Your task to perform on an android device: Open Yahoo.com Image 0: 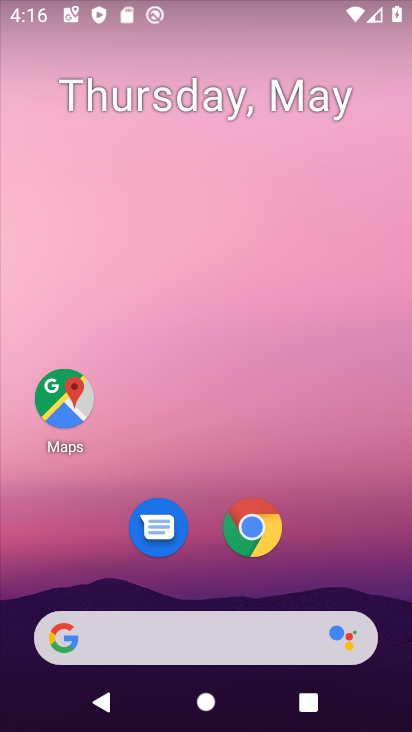
Step 0: drag from (326, 261) to (312, 5)
Your task to perform on an android device: Open Yahoo.com Image 1: 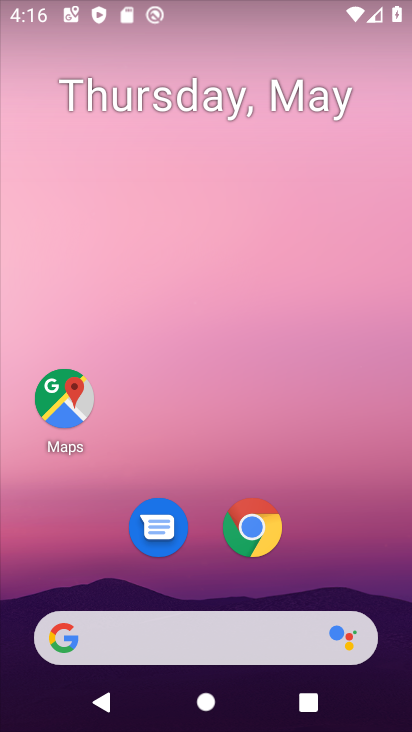
Step 1: click (256, 526)
Your task to perform on an android device: Open Yahoo.com Image 2: 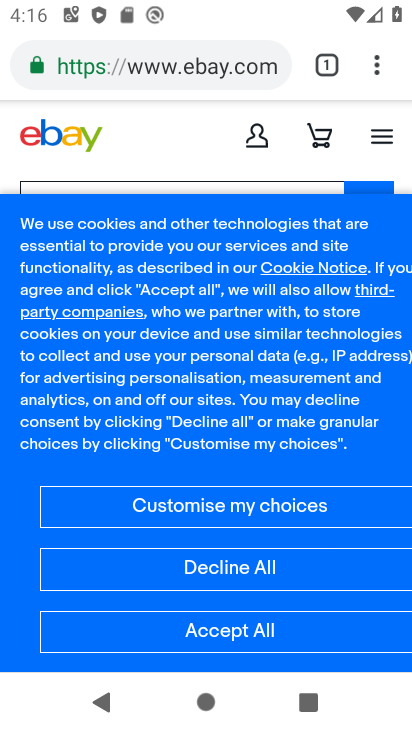
Step 2: click (183, 67)
Your task to perform on an android device: Open Yahoo.com Image 3: 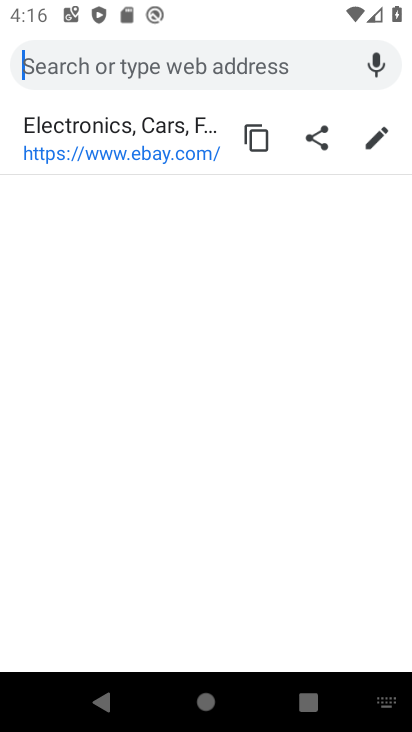
Step 3: type "yahoo.com"
Your task to perform on an android device: Open Yahoo.com Image 4: 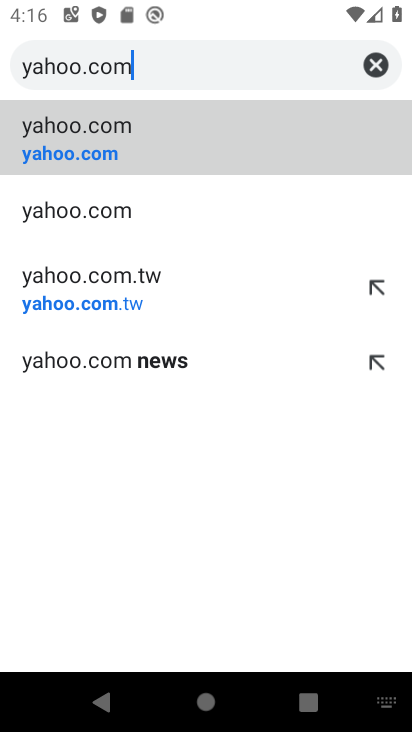
Step 4: click (56, 201)
Your task to perform on an android device: Open Yahoo.com Image 5: 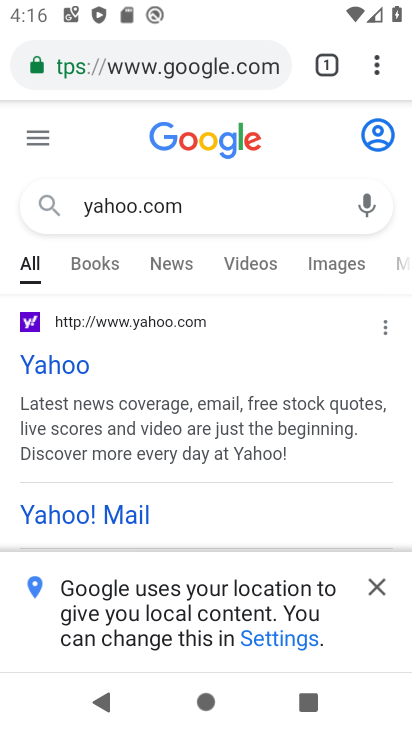
Step 5: click (71, 361)
Your task to perform on an android device: Open Yahoo.com Image 6: 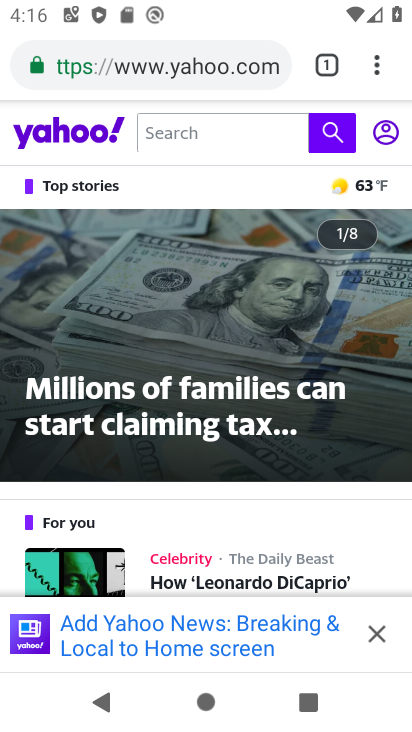
Step 6: task complete